Your task to perform on an android device: find photos in the google photos app Image 0: 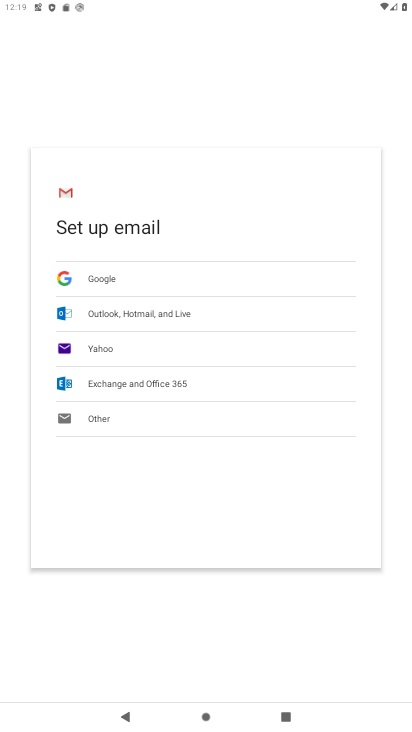
Step 0: press home button
Your task to perform on an android device: find photos in the google photos app Image 1: 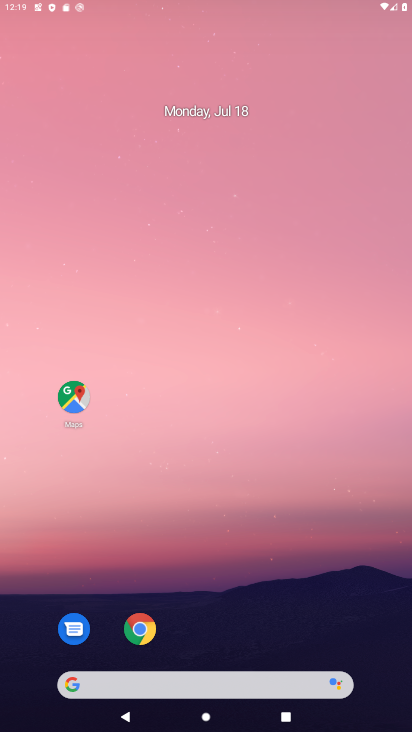
Step 1: drag from (196, 660) to (210, 289)
Your task to perform on an android device: find photos in the google photos app Image 2: 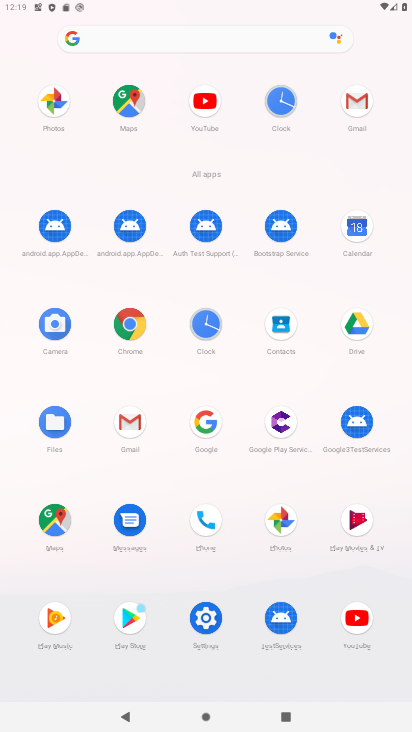
Step 2: click (272, 517)
Your task to perform on an android device: find photos in the google photos app Image 3: 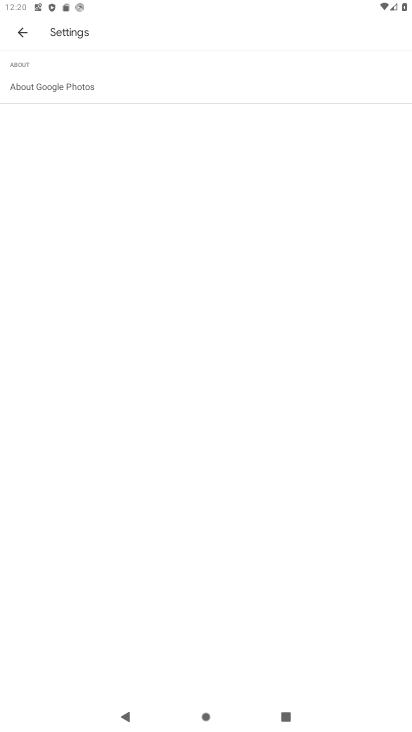
Step 3: click (25, 29)
Your task to perform on an android device: find photos in the google photos app Image 4: 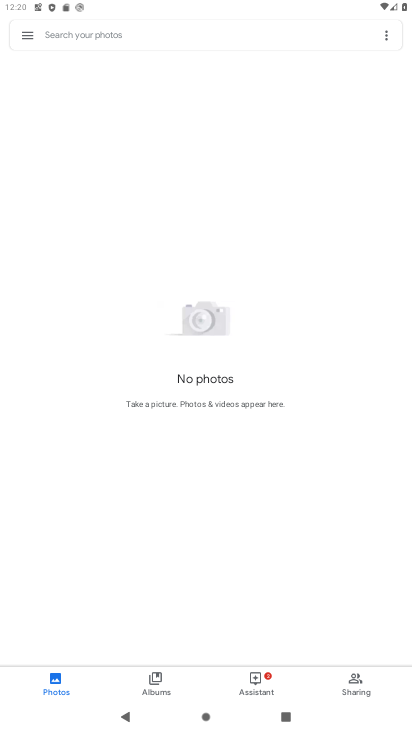
Step 4: click (25, 29)
Your task to perform on an android device: find photos in the google photos app Image 5: 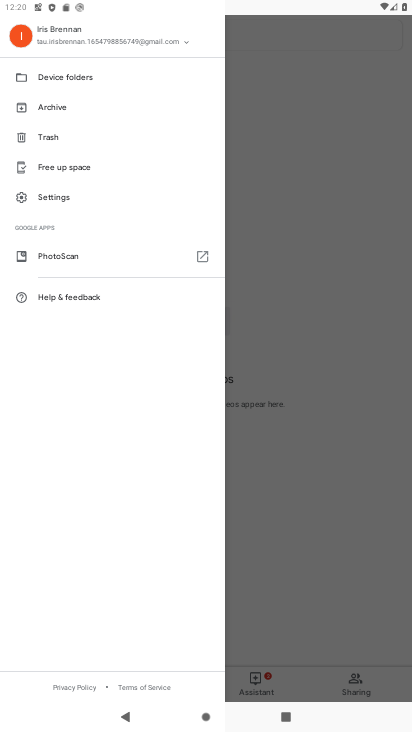
Step 5: click (329, 333)
Your task to perform on an android device: find photos in the google photos app Image 6: 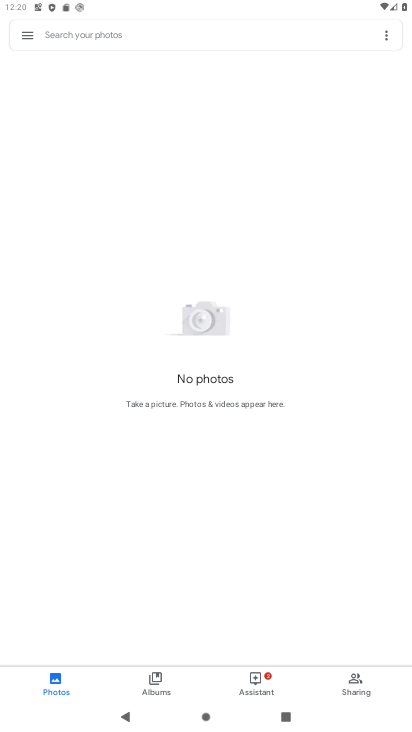
Step 6: click (148, 686)
Your task to perform on an android device: find photos in the google photos app Image 7: 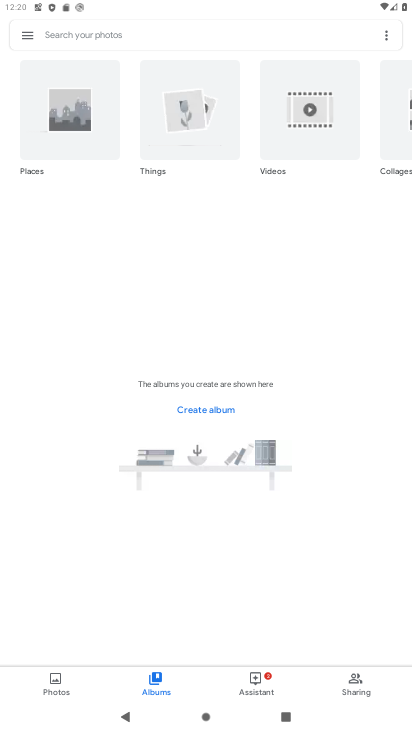
Step 7: task complete